Your task to perform on an android device: Search for the best selling books on Target. Image 0: 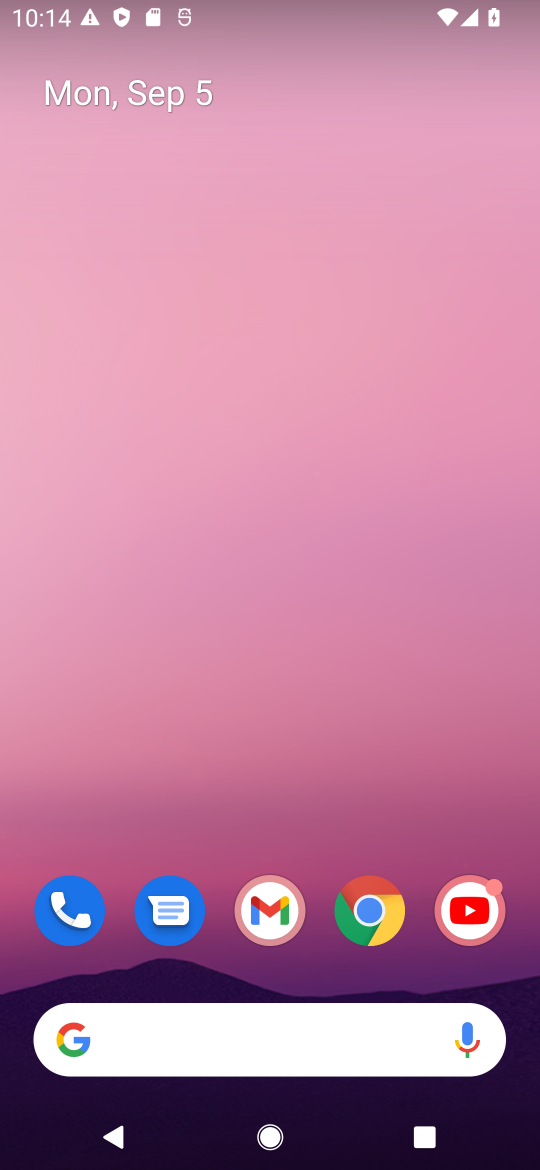
Step 0: click (387, 924)
Your task to perform on an android device: Search for the best selling books on Target. Image 1: 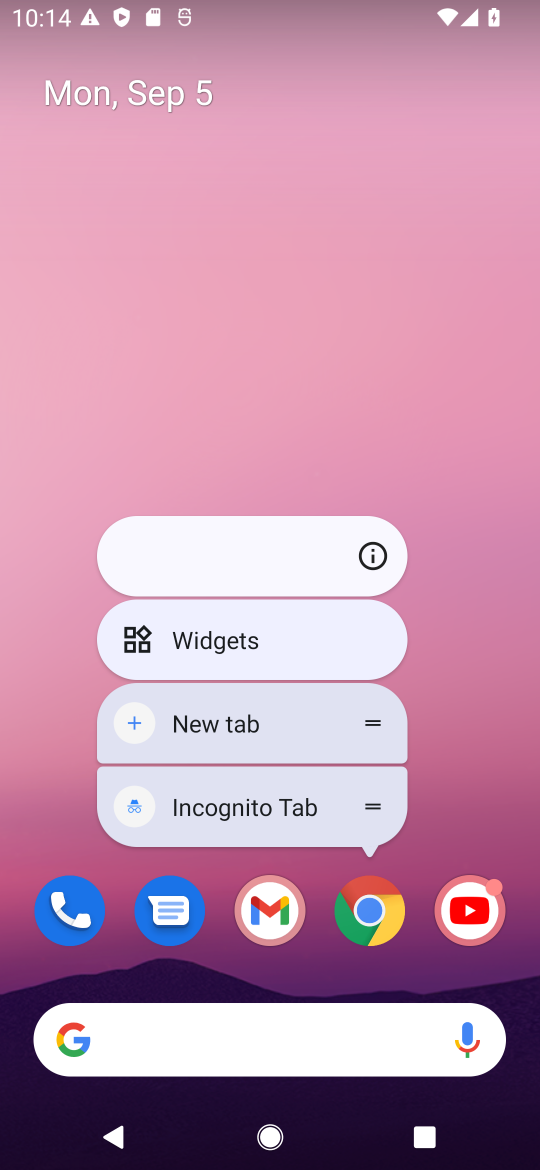
Step 1: click (373, 910)
Your task to perform on an android device: Search for the best selling books on Target. Image 2: 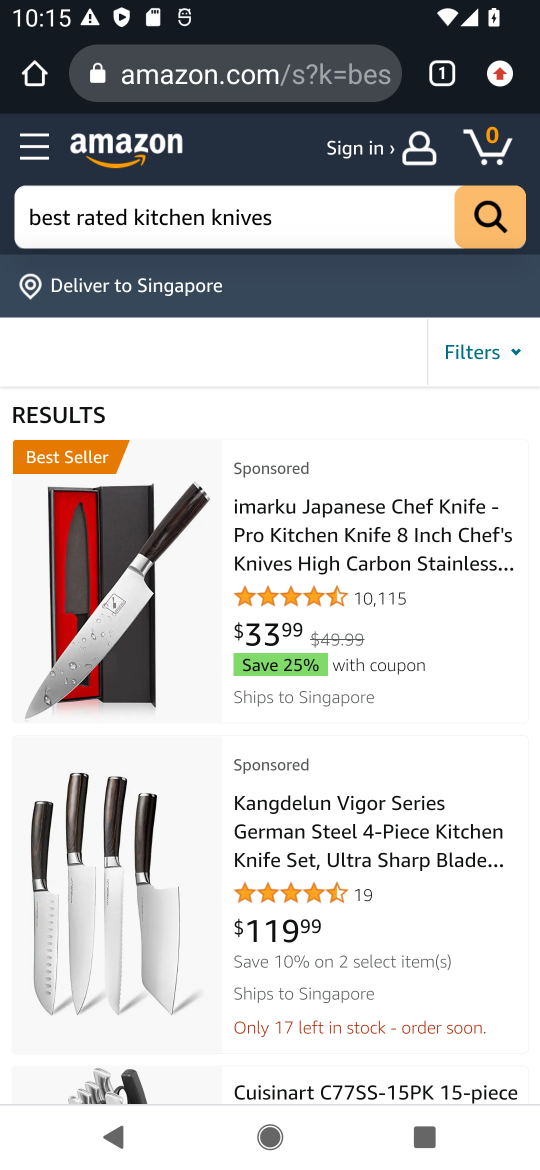
Step 2: click (242, 100)
Your task to perform on an android device: Search for the best selling books on Target. Image 3: 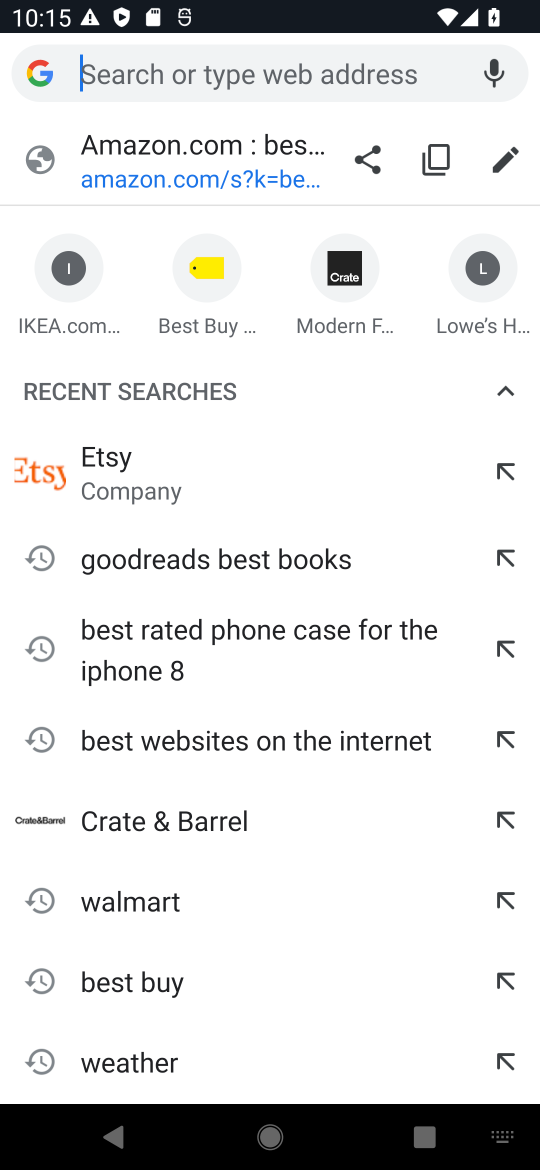
Step 3: type "best selling book on target"
Your task to perform on an android device: Search for the best selling books on Target. Image 4: 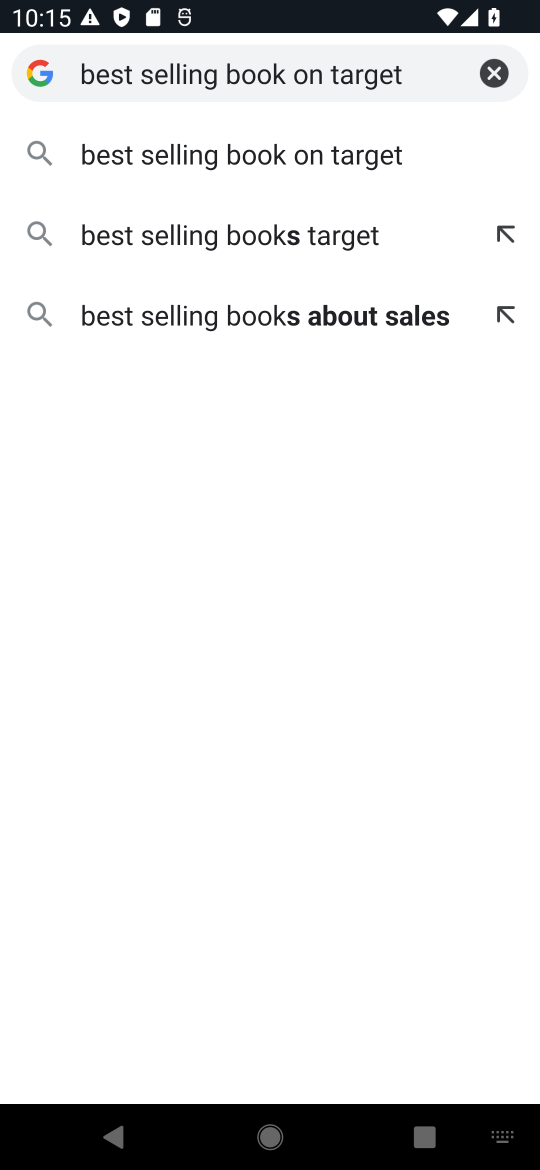
Step 4: click (236, 232)
Your task to perform on an android device: Search for the best selling books on Target. Image 5: 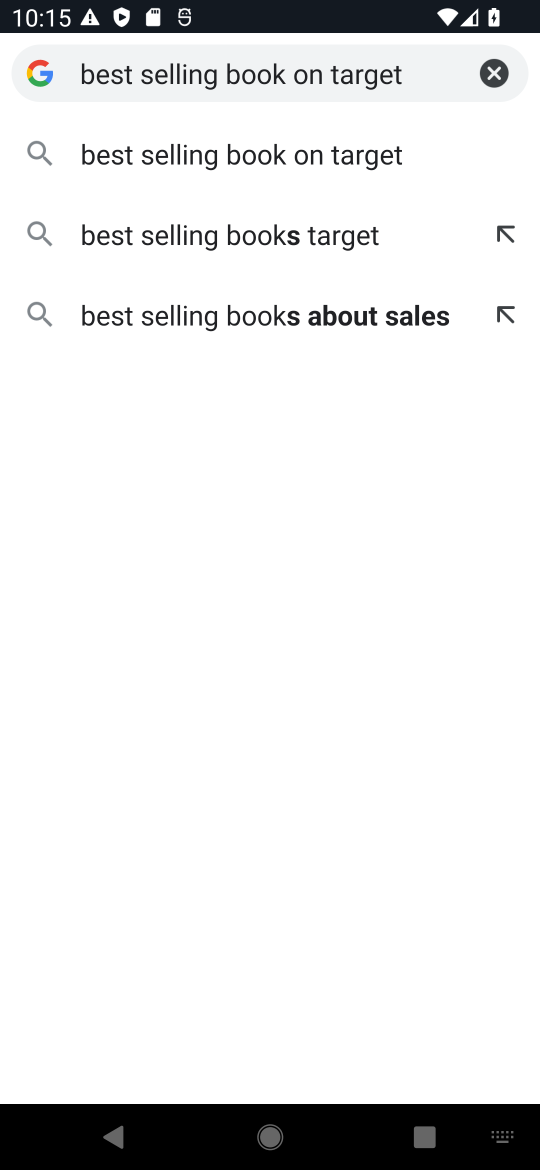
Step 5: click (330, 165)
Your task to perform on an android device: Search for the best selling books on Target. Image 6: 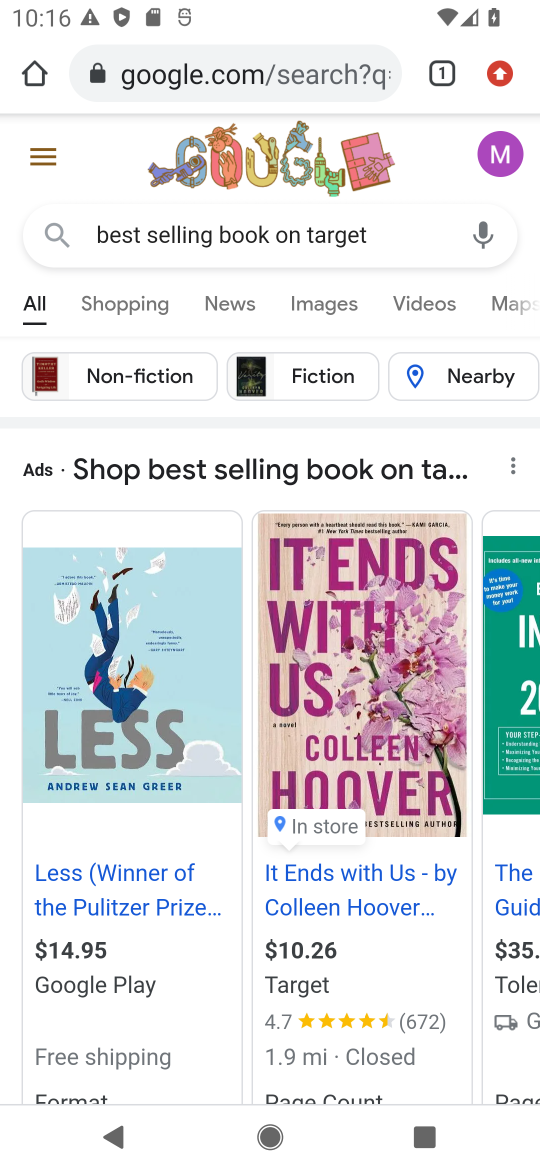
Step 6: drag from (265, 865) to (286, 295)
Your task to perform on an android device: Search for the best selling books on Target. Image 7: 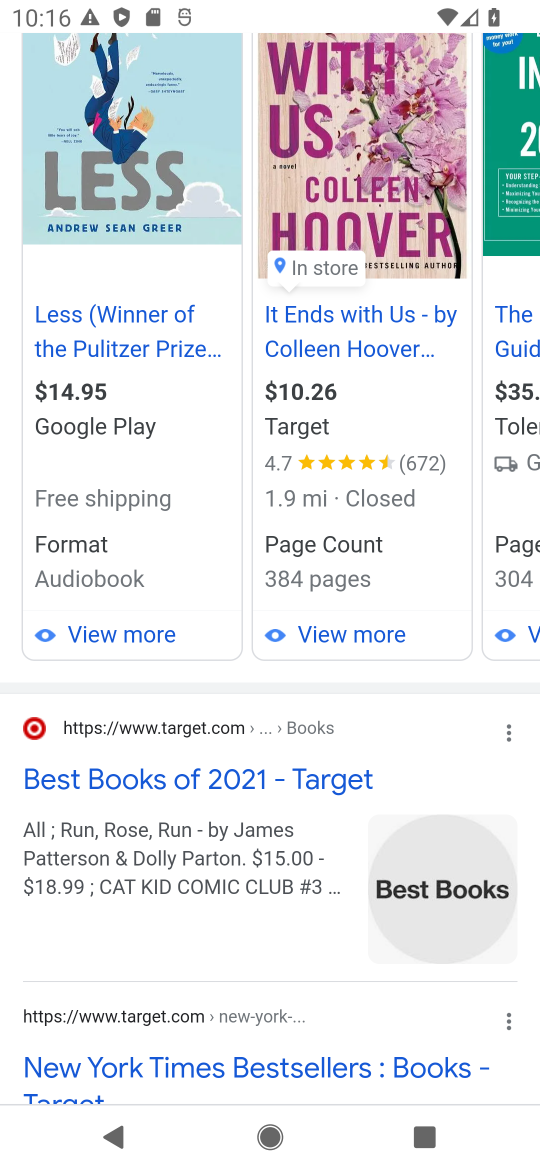
Step 7: click (261, 789)
Your task to perform on an android device: Search for the best selling books on Target. Image 8: 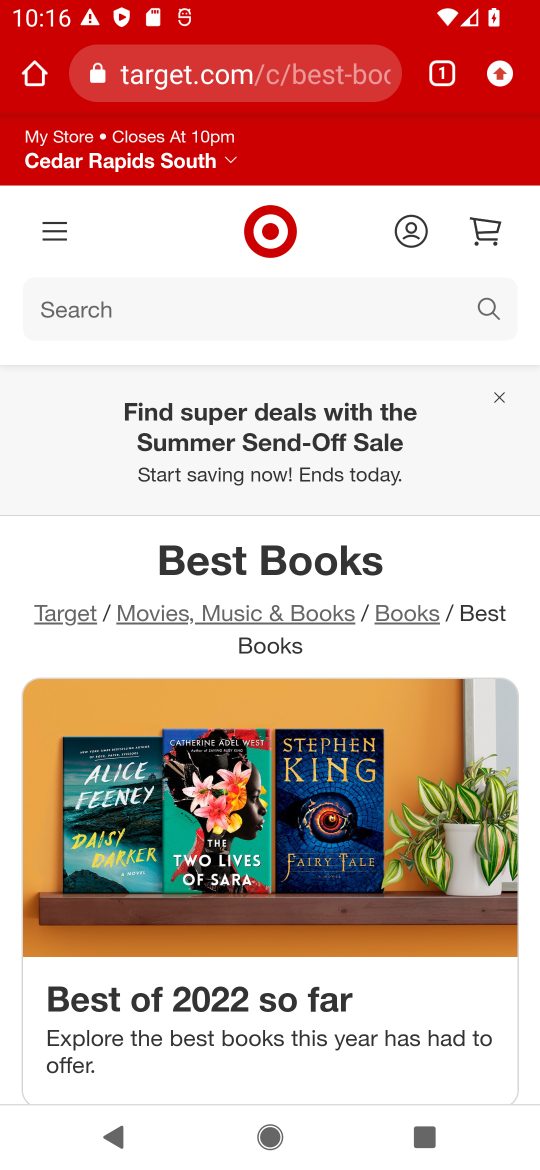
Step 8: task complete